Your task to perform on an android device: visit the assistant section in the google photos Image 0: 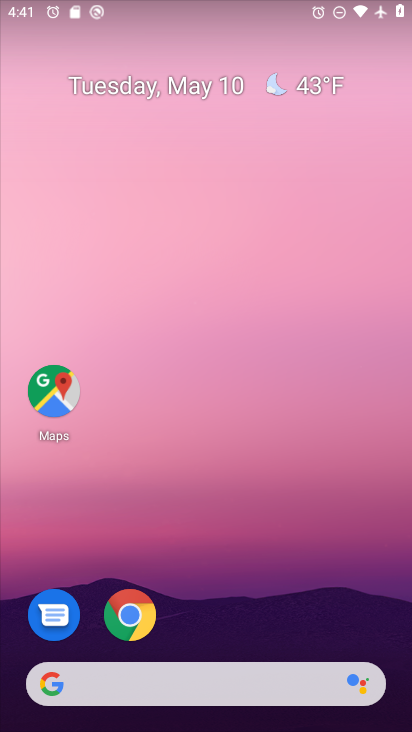
Step 0: drag from (235, 580) to (209, 62)
Your task to perform on an android device: visit the assistant section in the google photos Image 1: 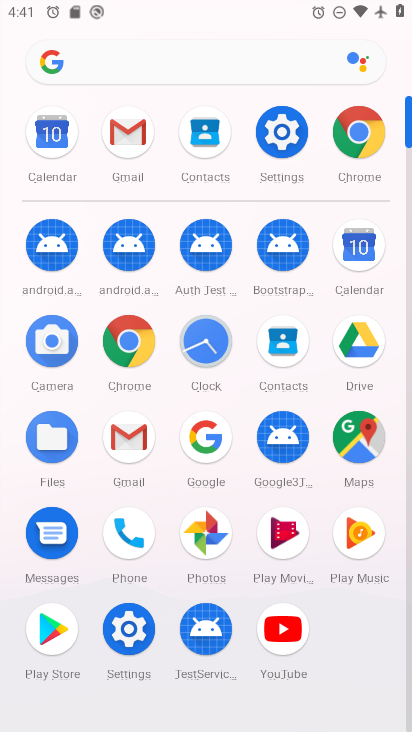
Step 1: click (205, 530)
Your task to perform on an android device: visit the assistant section in the google photos Image 2: 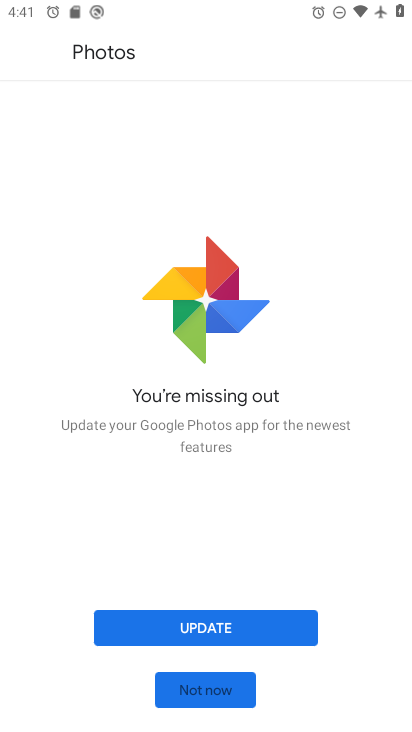
Step 2: click (232, 628)
Your task to perform on an android device: visit the assistant section in the google photos Image 3: 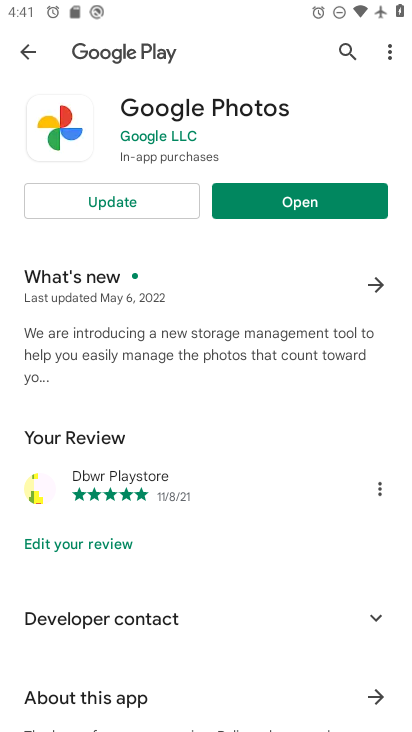
Step 3: click (156, 195)
Your task to perform on an android device: visit the assistant section in the google photos Image 4: 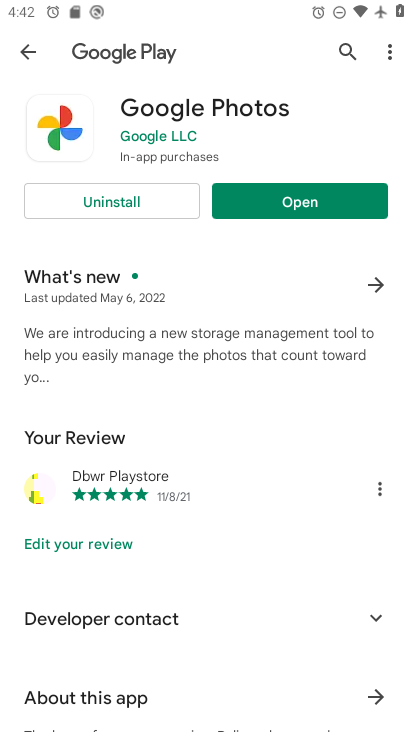
Step 4: click (333, 194)
Your task to perform on an android device: visit the assistant section in the google photos Image 5: 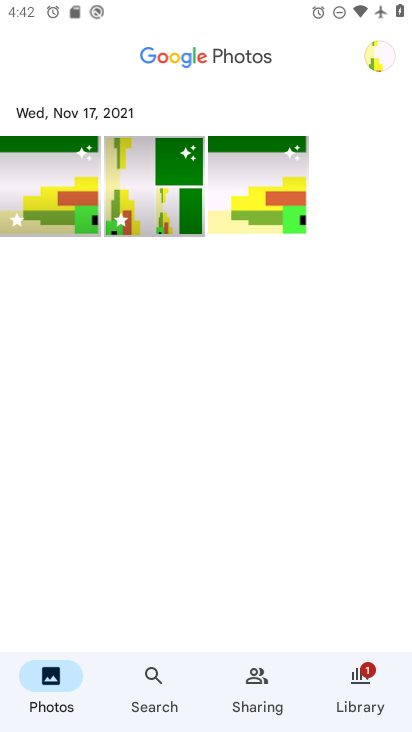
Step 5: click (277, 693)
Your task to perform on an android device: visit the assistant section in the google photos Image 6: 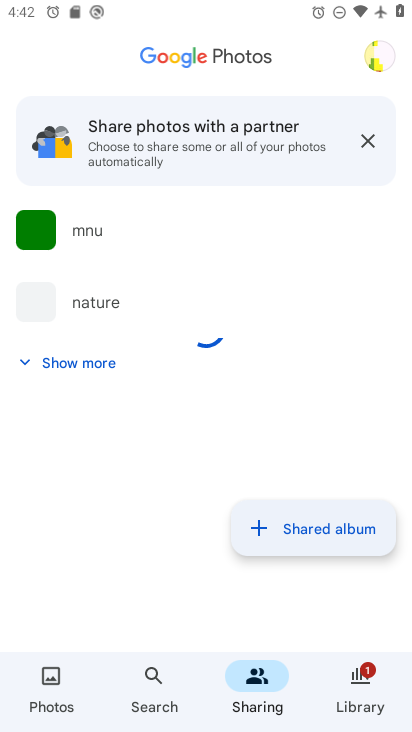
Step 6: click (28, 362)
Your task to perform on an android device: visit the assistant section in the google photos Image 7: 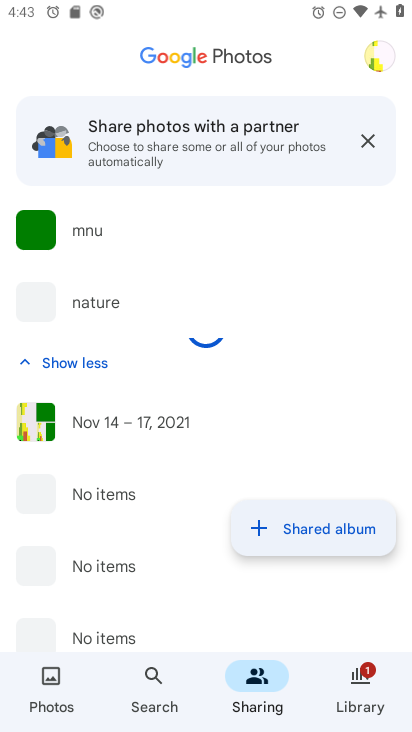
Step 7: click (354, 690)
Your task to perform on an android device: visit the assistant section in the google photos Image 8: 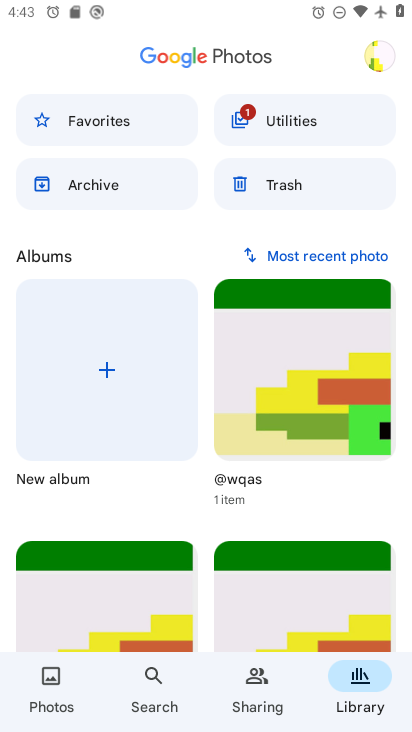
Step 8: click (65, 692)
Your task to perform on an android device: visit the assistant section in the google photos Image 9: 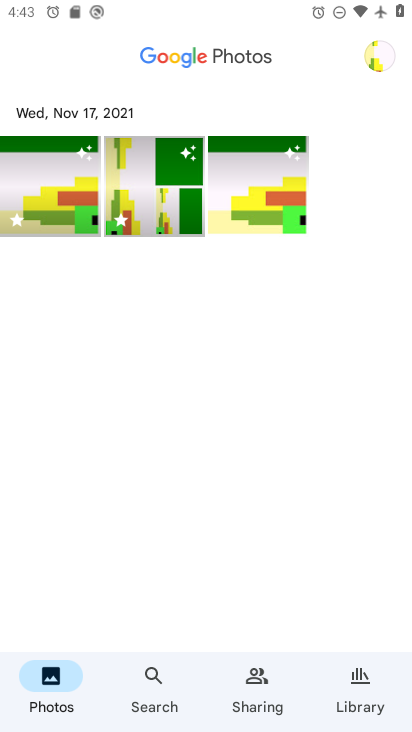
Step 9: task complete